Your task to perform on an android device: Open Chrome and go to settings Image 0: 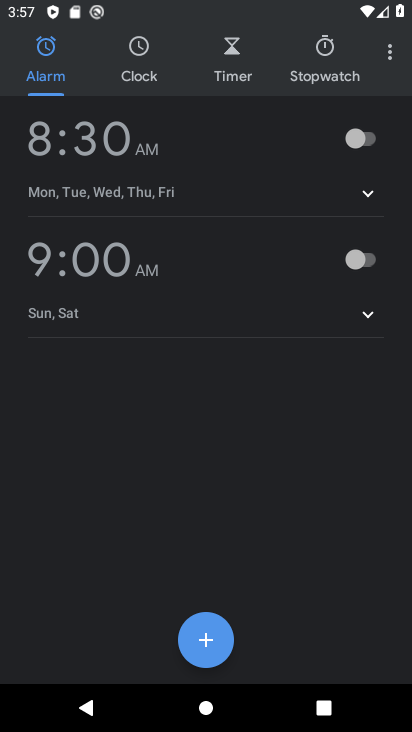
Step 0: press home button
Your task to perform on an android device: Open Chrome and go to settings Image 1: 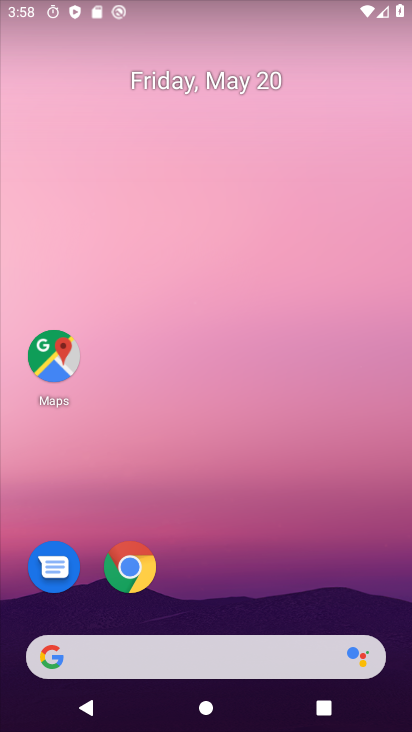
Step 1: click (135, 577)
Your task to perform on an android device: Open Chrome and go to settings Image 2: 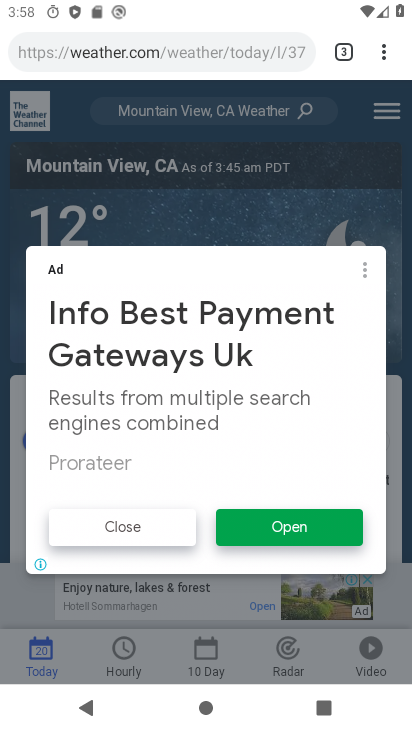
Step 2: click (390, 58)
Your task to perform on an android device: Open Chrome and go to settings Image 3: 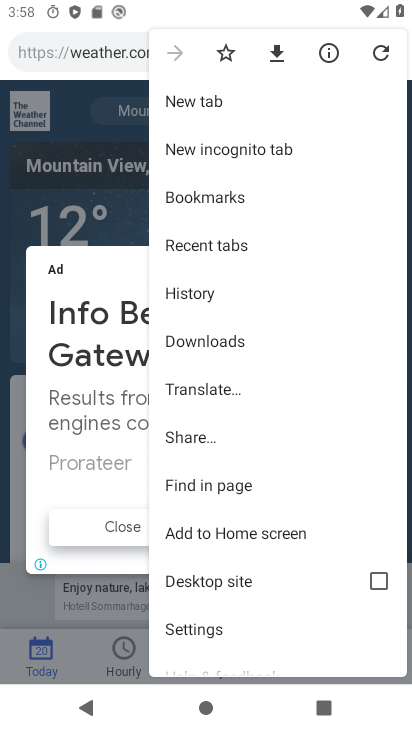
Step 3: click (226, 630)
Your task to perform on an android device: Open Chrome and go to settings Image 4: 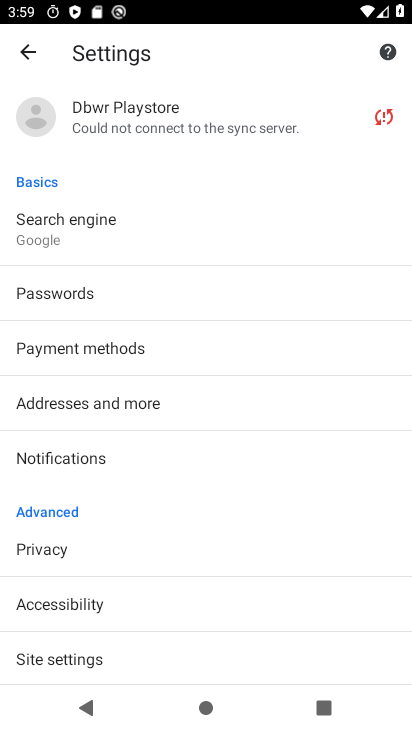
Step 4: task complete